Your task to perform on an android device: uninstall "Life360: Find Family & Friends" Image 0: 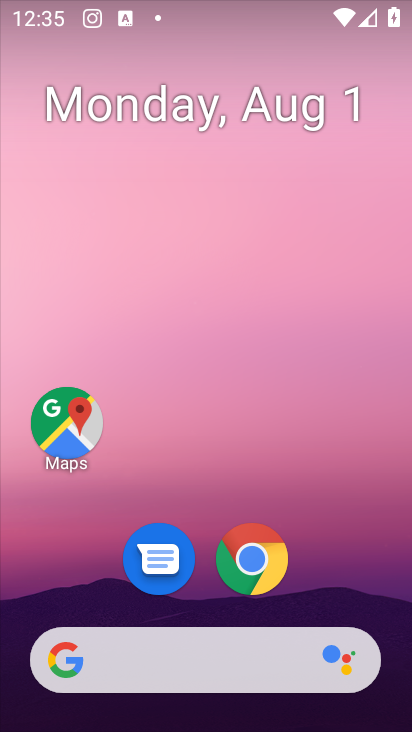
Step 0: drag from (83, 545) to (142, 132)
Your task to perform on an android device: uninstall "Life360: Find Family & Friends" Image 1: 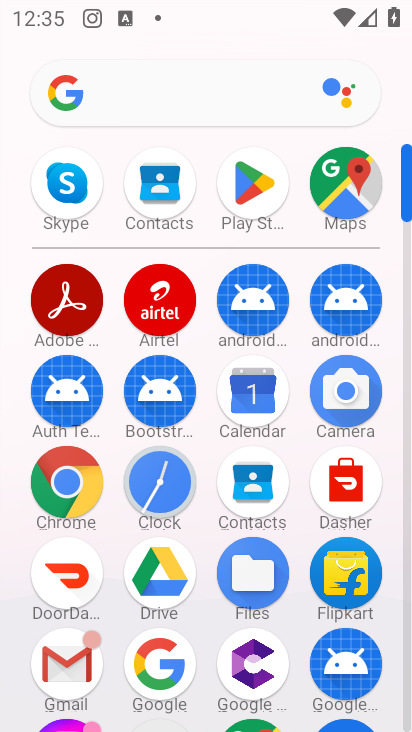
Step 1: click (238, 174)
Your task to perform on an android device: uninstall "Life360: Find Family & Friends" Image 2: 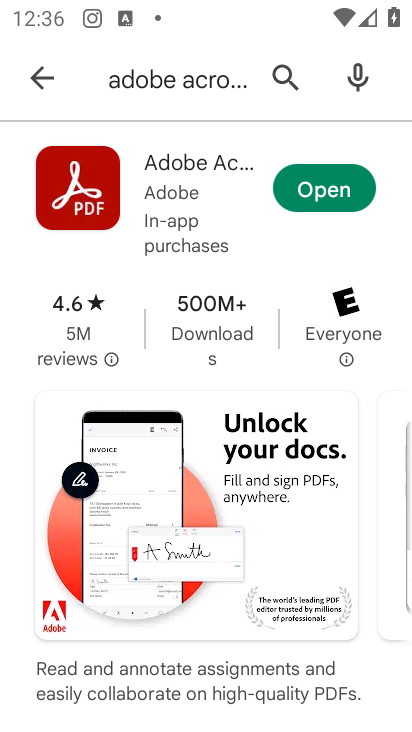
Step 2: click (270, 76)
Your task to perform on an android device: uninstall "Life360: Find Family & Friends" Image 3: 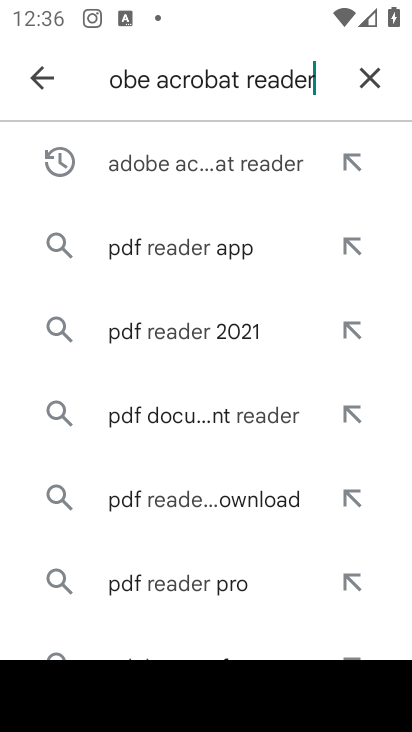
Step 3: click (380, 44)
Your task to perform on an android device: uninstall "Life360: Find Family & Friends" Image 4: 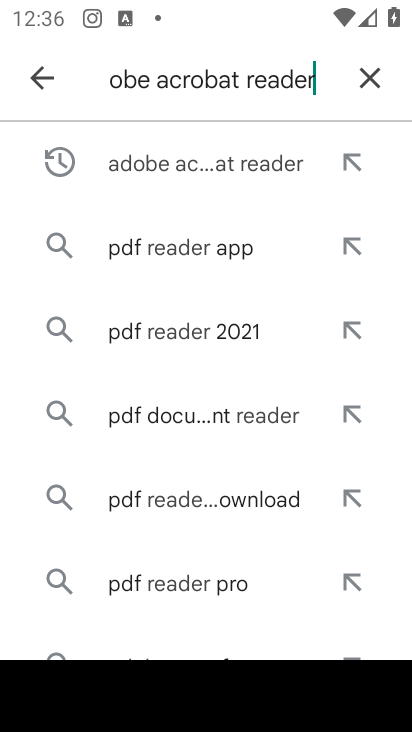
Step 4: click (376, 66)
Your task to perform on an android device: uninstall "Life360: Find Family & Friends" Image 5: 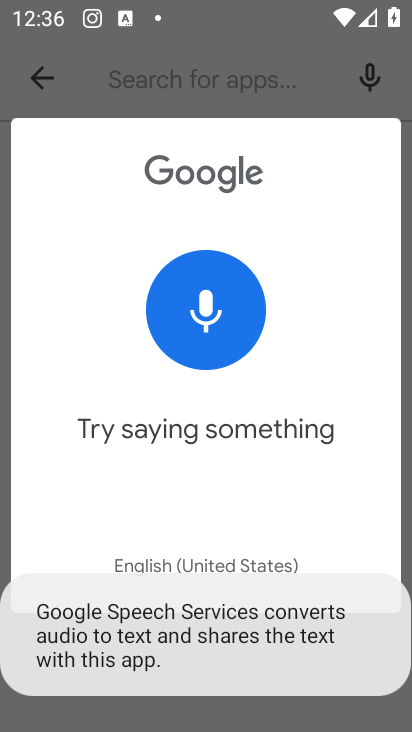
Step 5: click (124, 78)
Your task to perform on an android device: uninstall "Life360: Find Family & Friends" Image 6: 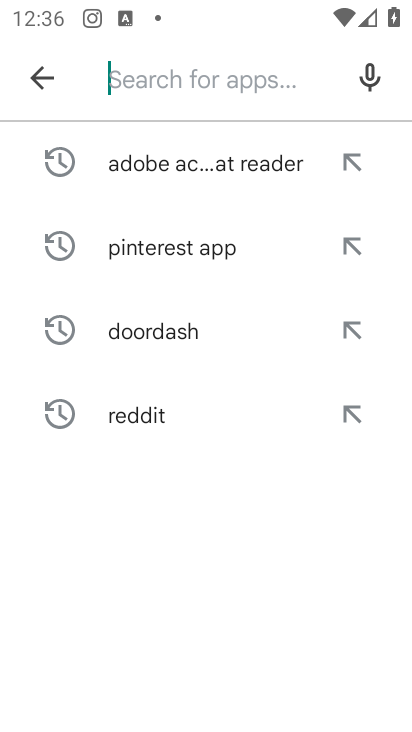
Step 6: click (131, 78)
Your task to perform on an android device: uninstall "Life360: Find Family & Friends" Image 7: 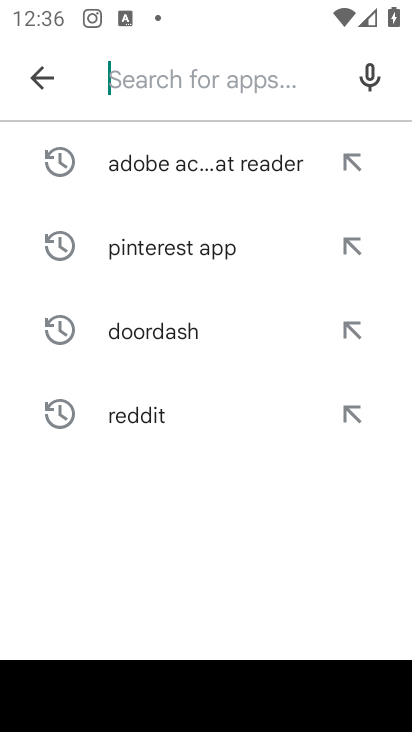
Step 7: type "life 360"
Your task to perform on an android device: uninstall "Life360: Find Family & Friends" Image 8: 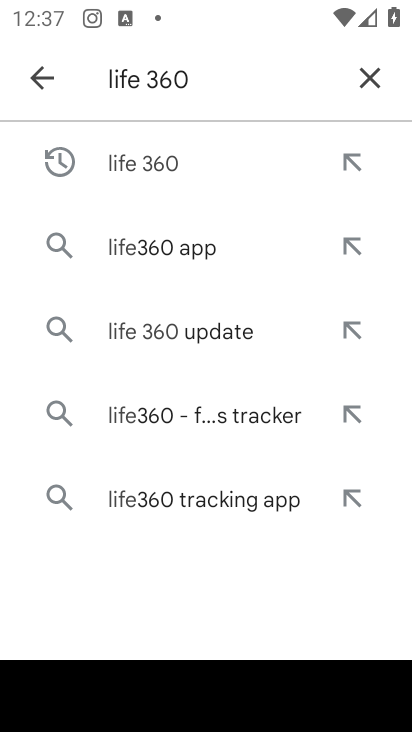
Step 8: click (121, 168)
Your task to perform on an android device: uninstall "Life360: Find Family & Friends" Image 9: 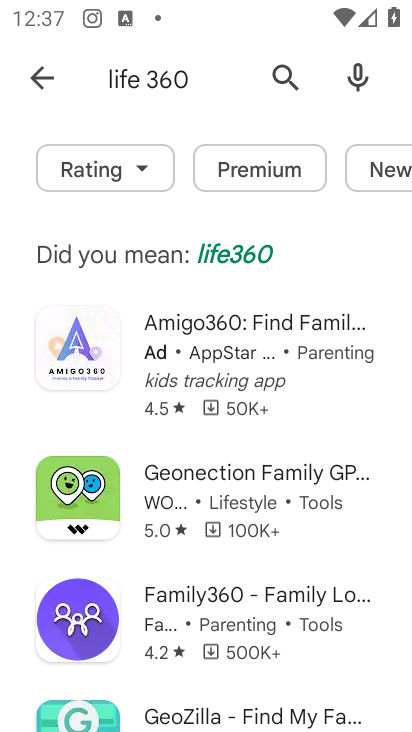
Step 9: task complete